Your task to perform on an android device: Open Chrome and go to settings Image 0: 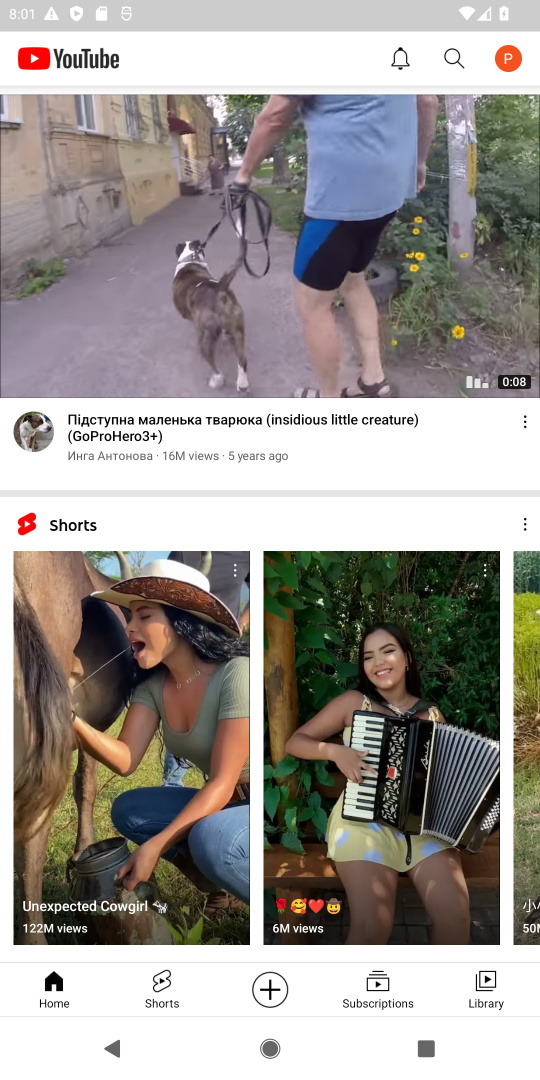
Step 0: press home button
Your task to perform on an android device: Open Chrome and go to settings Image 1: 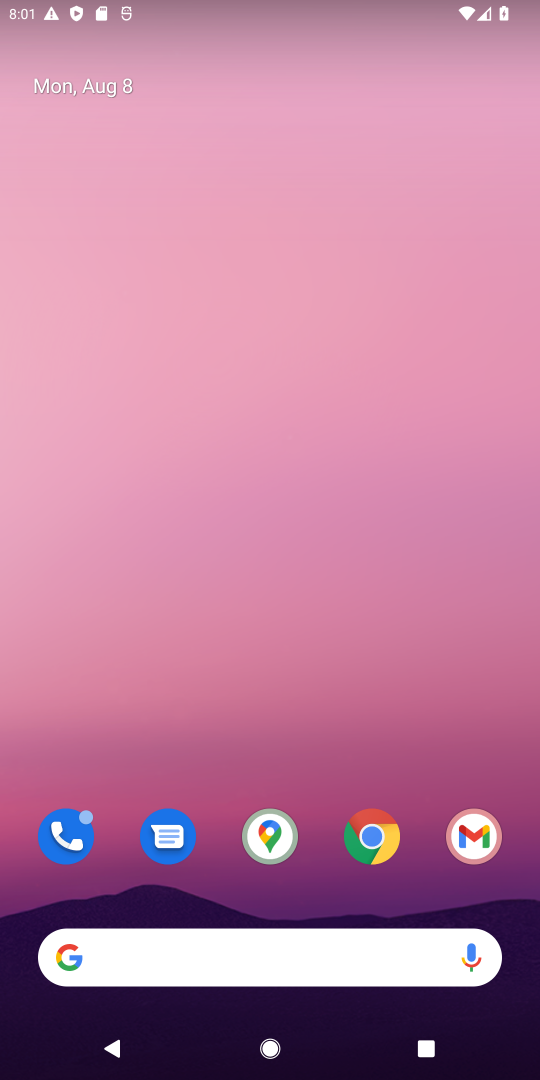
Step 1: drag from (409, 773) to (336, 16)
Your task to perform on an android device: Open Chrome and go to settings Image 2: 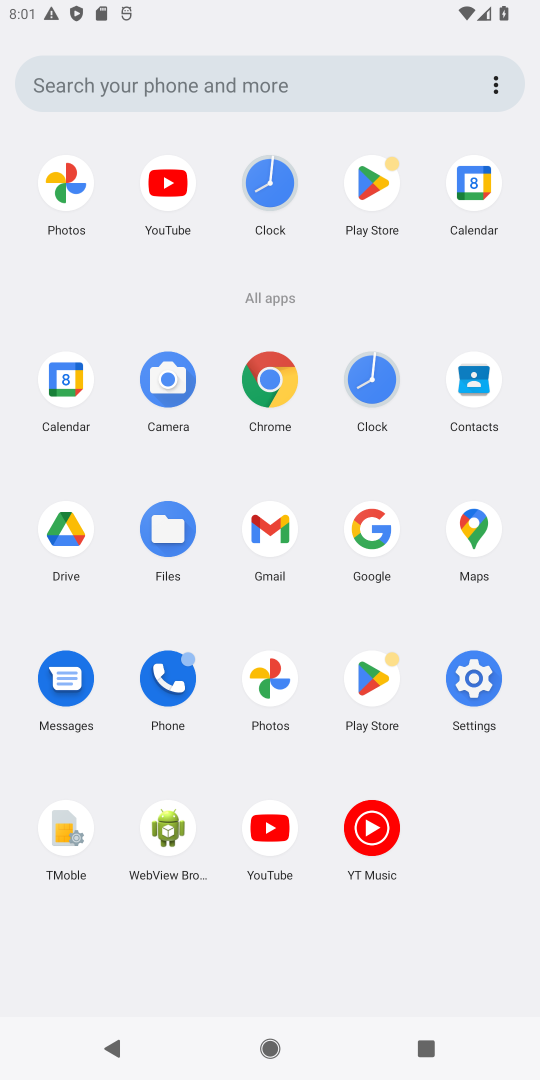
Step 2: click (490, 709)
Your task to perform on an android device: Open Chrome and go to settings Image 3: 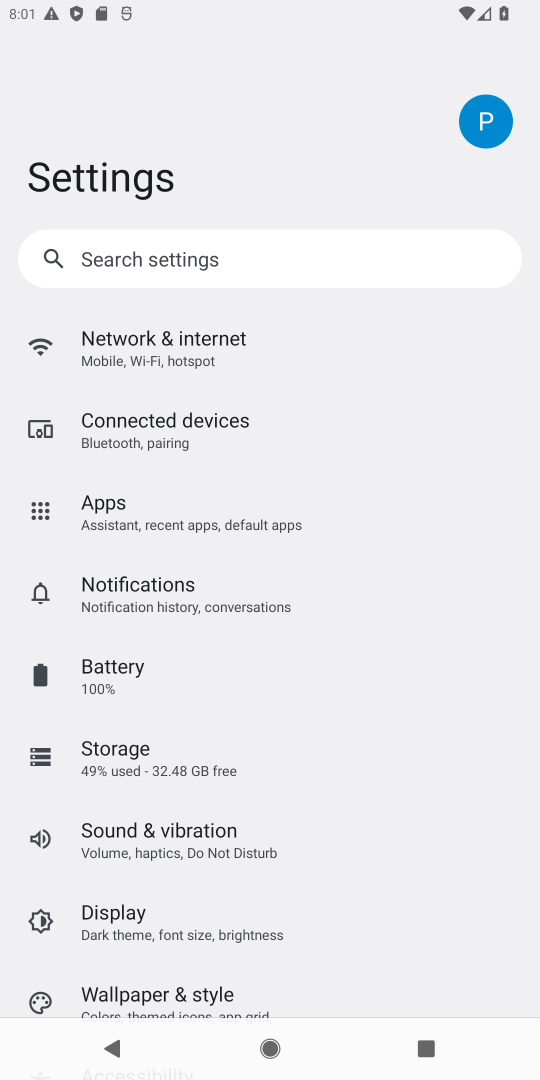
Step 3: task complete